Your task to perform on an android device: check android version Image 0: 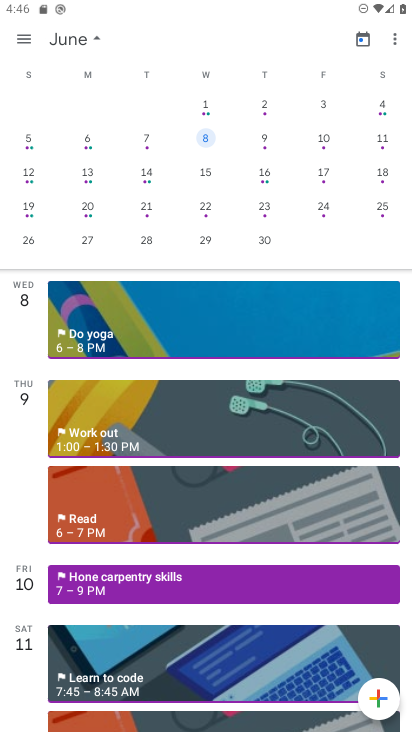
Step 0: press home button
Your task to perform on an android device: check android version Image 1: 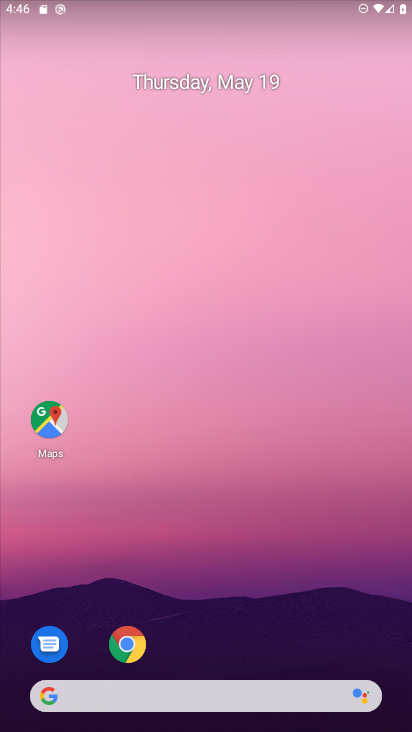
Step 1: drag from (296, 549) to (371, 138)
Your task to perform on an android device: check android version Image 2: 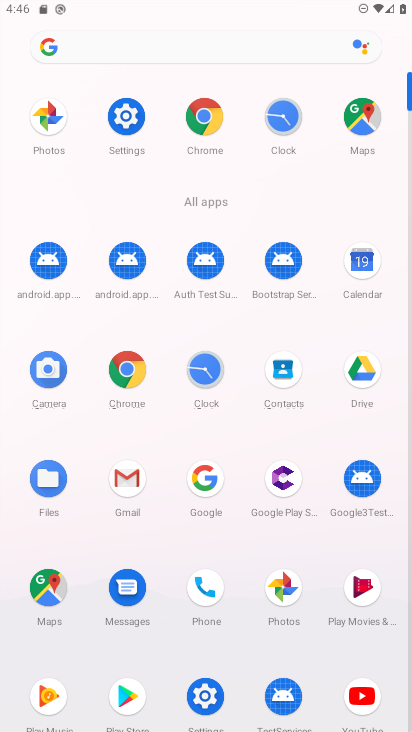
Step 2: click (127, 135)
Your task to perform on an android device: check android version Image 3: 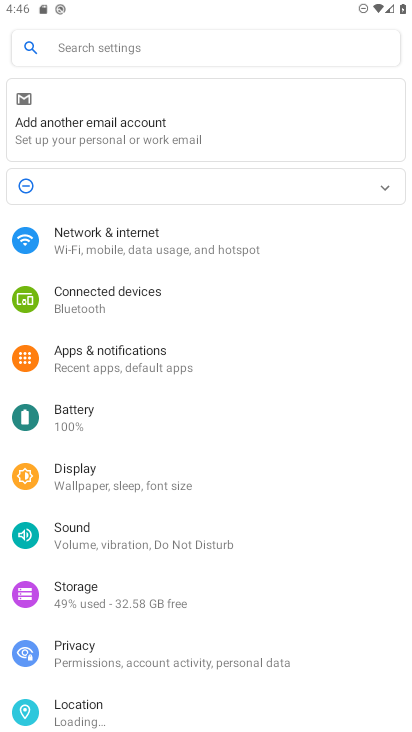
Step 3: drag from (248, 531) to (335, 34)
Your task to perform on an android device: check android version Image 4: 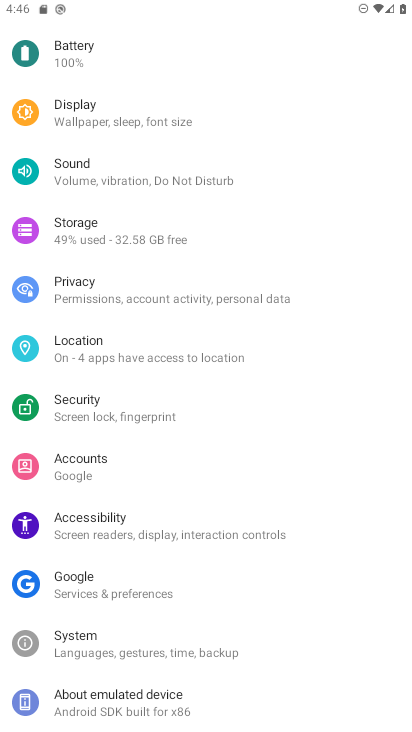
Step 4: click (132, 716)
Your task to perform on an android device: check android version Image 5: 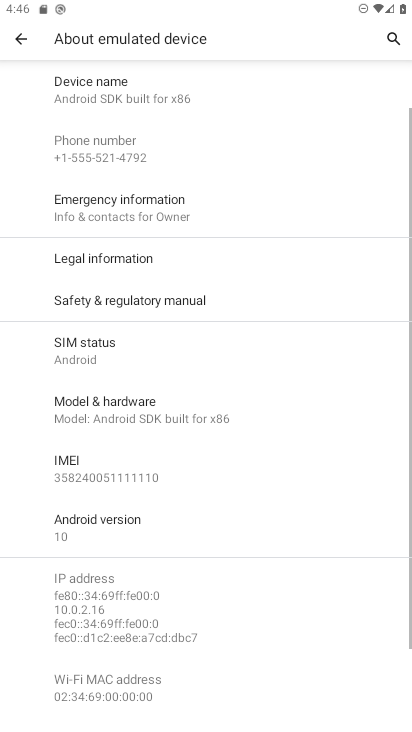
Step 5: click (140, 543)
Your task to perform on an android device: check android version Image 6: 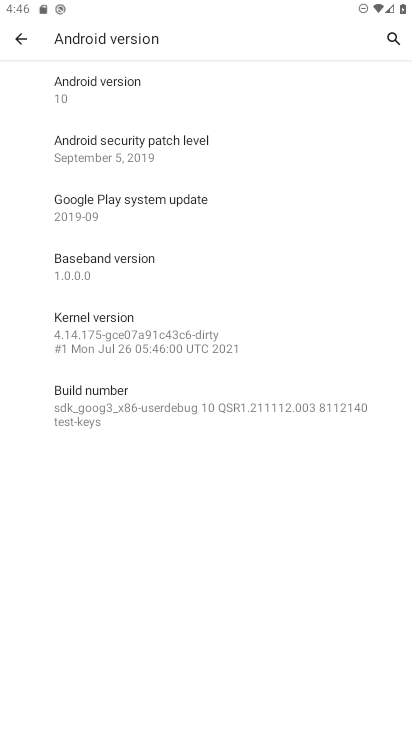
Step 6: task complete